Your task to perform on an android device: Open internet settings Image 0: 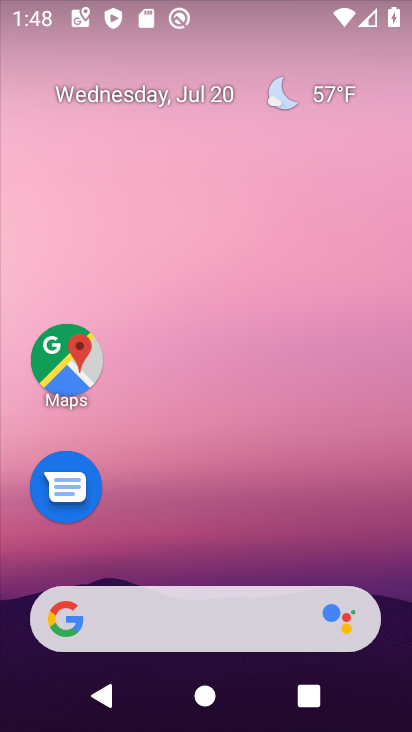
Step 0: drag from (142, 559) to (238, 65)
Your task to perform on an android device: Open internet settings Image 1: 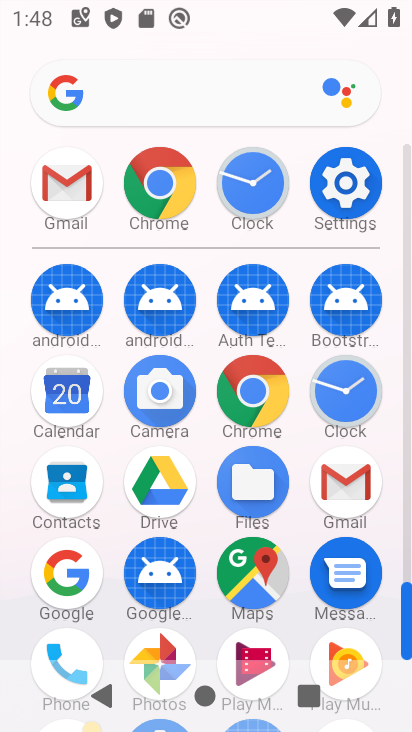
Step 1: click (351, 178)
Your task to perform on an android device: Open internet settings Image 2: 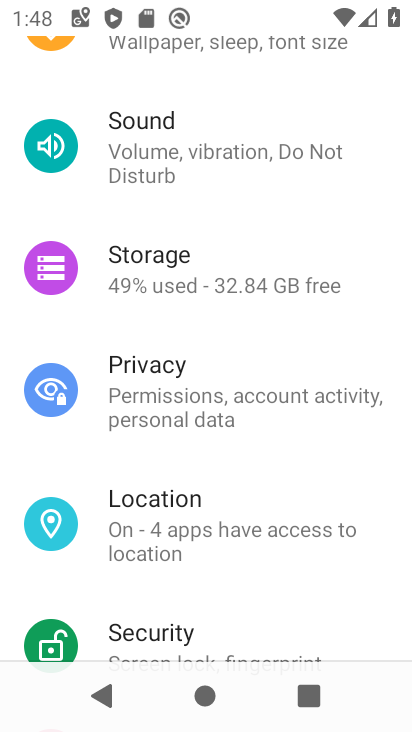
Step 2: drag from (284, 181) to (146, 664)
Your task to perform on an android device: Open internet settings Image 3: 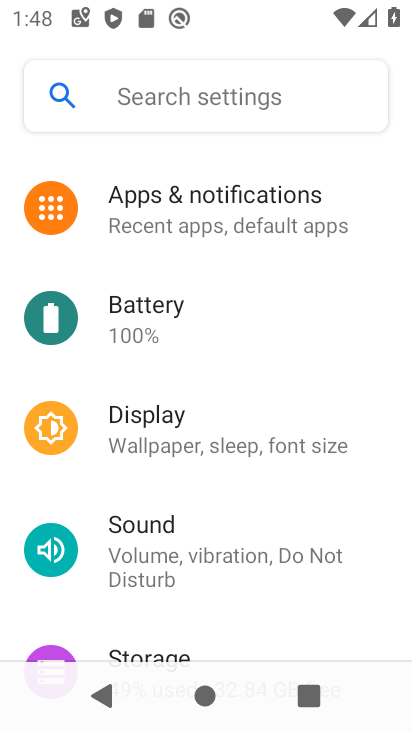
Step 3: drag from (190, 564) to (179, 203)
Your task to perform on an android device: Open internet settings Image 4: 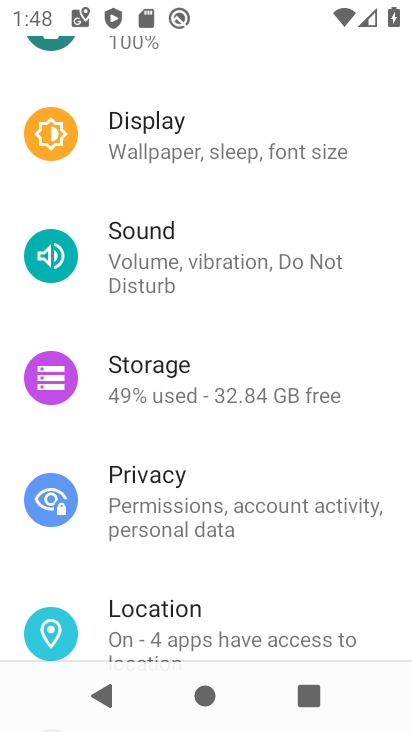
Step 4: drag from (138, 532) to (189, 54)
Your task to perform on an android device: Open internet settings Image 5: 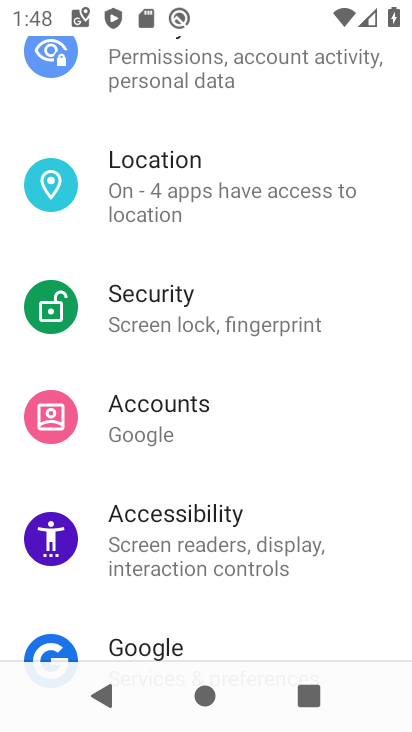
Step 5: drag from (193, 141) to (117, 702)
Your task to perform on an android device: Open internet settings Image 6: 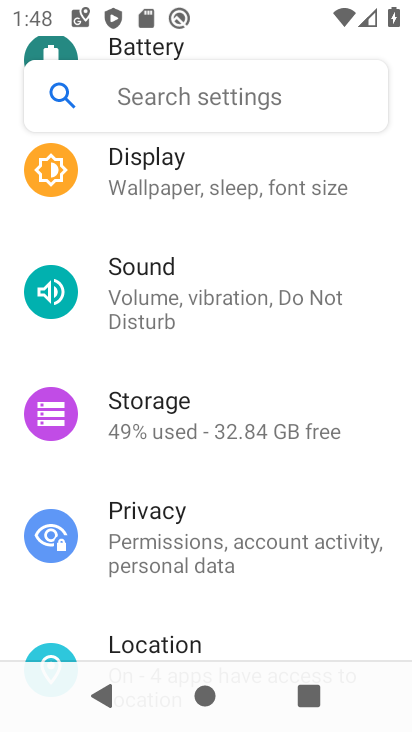
Step 6: drag from (210, 223) to (130, 726)
Your task to perform on an android device: Open internet settings Image 7: 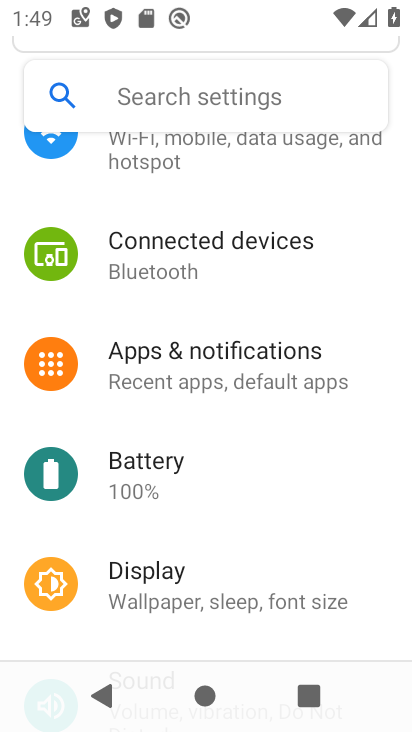
Step 7: drag from (172, 253) to (187, 672)
Your task to perform on an android device: Open internet settings Image 8: 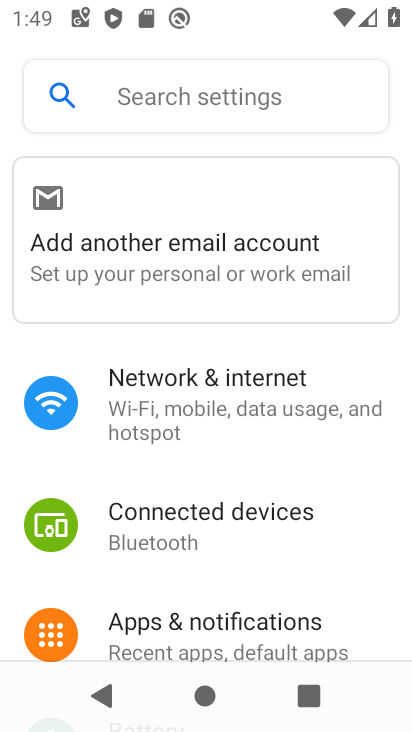
Step 8: click (161, 403)
Your task to perform on an android device: Open internet settings Image 9: 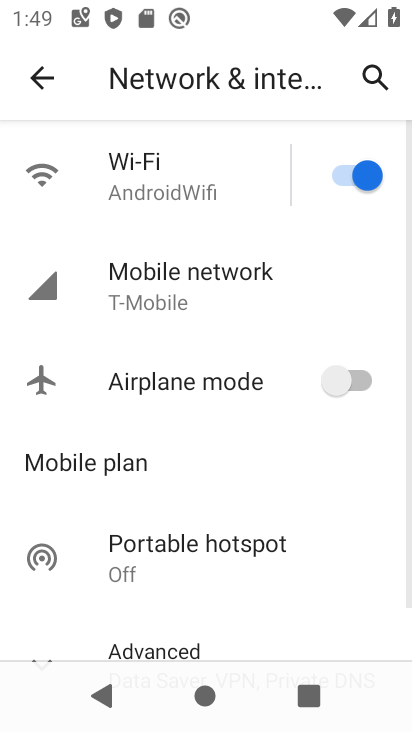
Step 9: task complete